Your task to perform on an android device: check battery use Image 0: 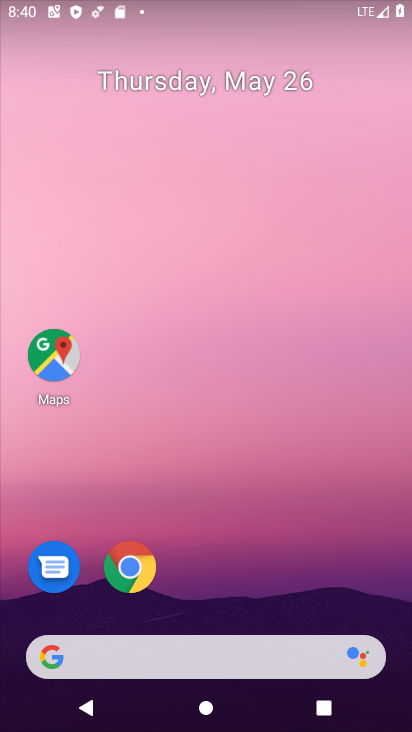
Step 0: drag from (126, 706) to (187, 196)
Your task to perform on an android device: check battery use Image 1: 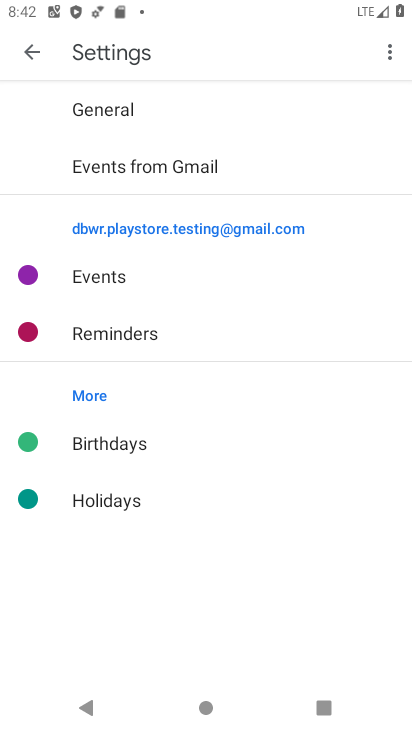
Step 1: press home button
Your task to perform on an android device: check battery use Image 2: 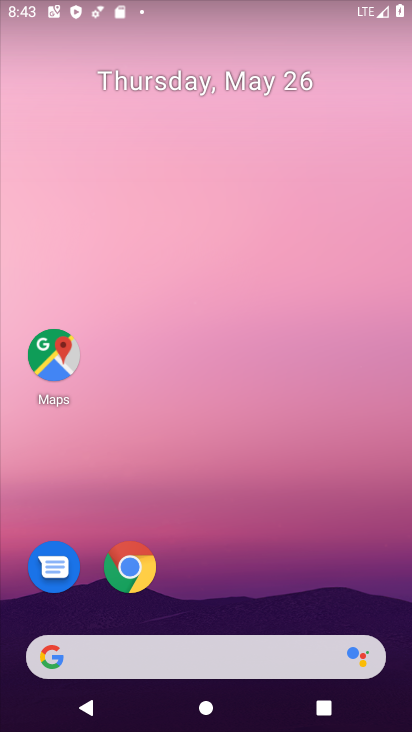
Step 2: drag from (263, 638) to (286, 4)
Your task to perform on an android device: check battery use Image 3: 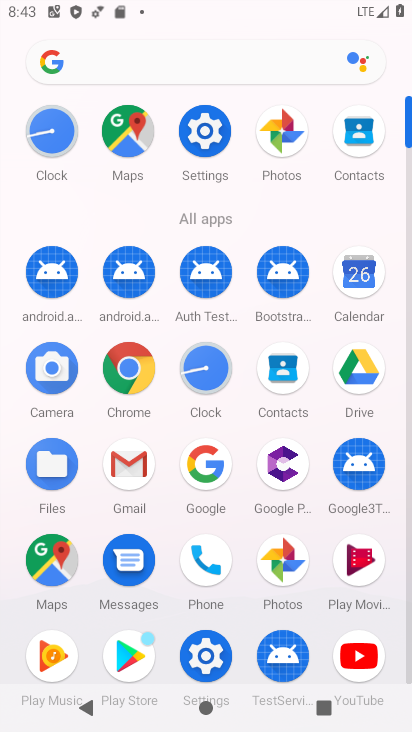
Step 3: click (192, 131)
Your task to perform on an android device: check battery use Image 4: 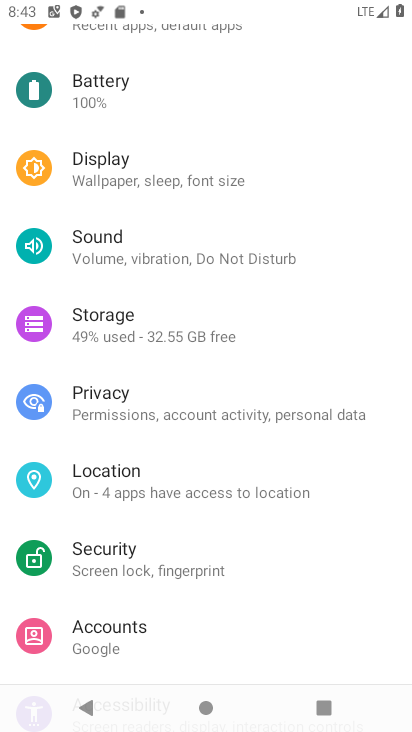
Step 4: click (164, 327)
Your task to perform on an android device: check battery use Image 5: 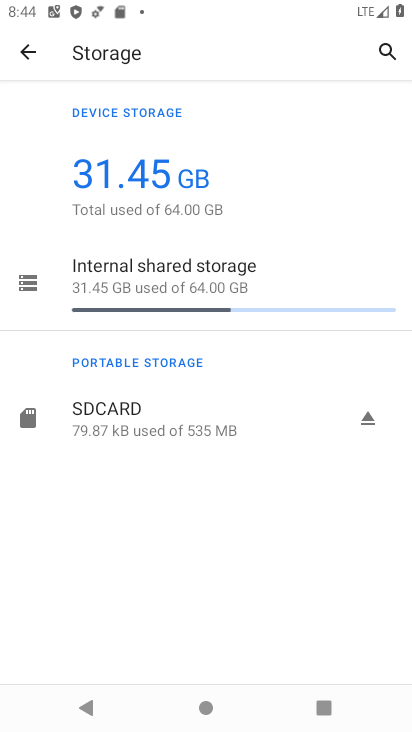
Step 5: task complete